Your task to perform on an android device: empty trash in google photos Image 0: 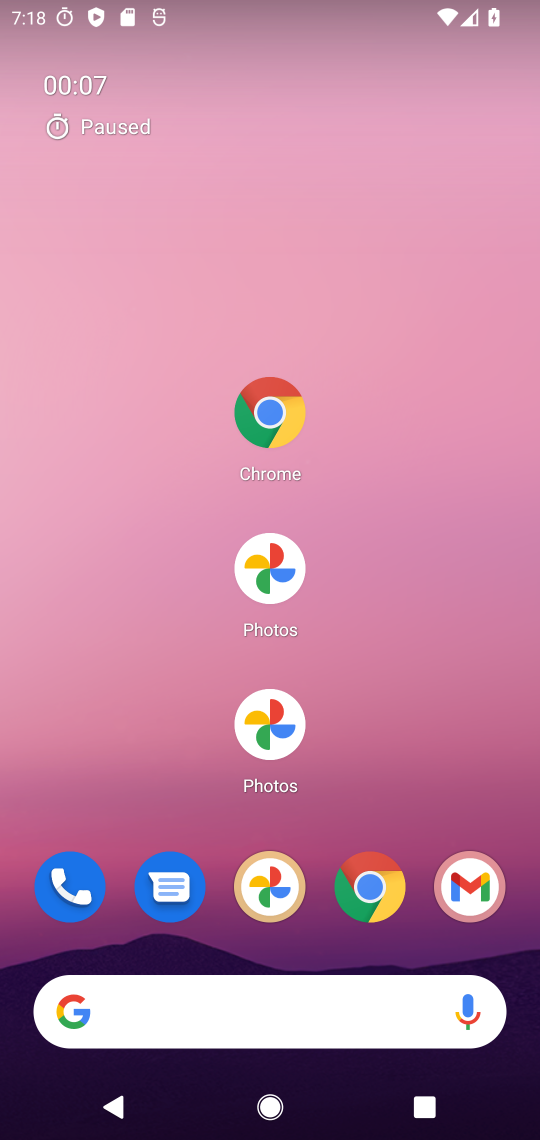
Step 0: press back button
Your task to perform on an android device: empty trash in google photos Image 1: 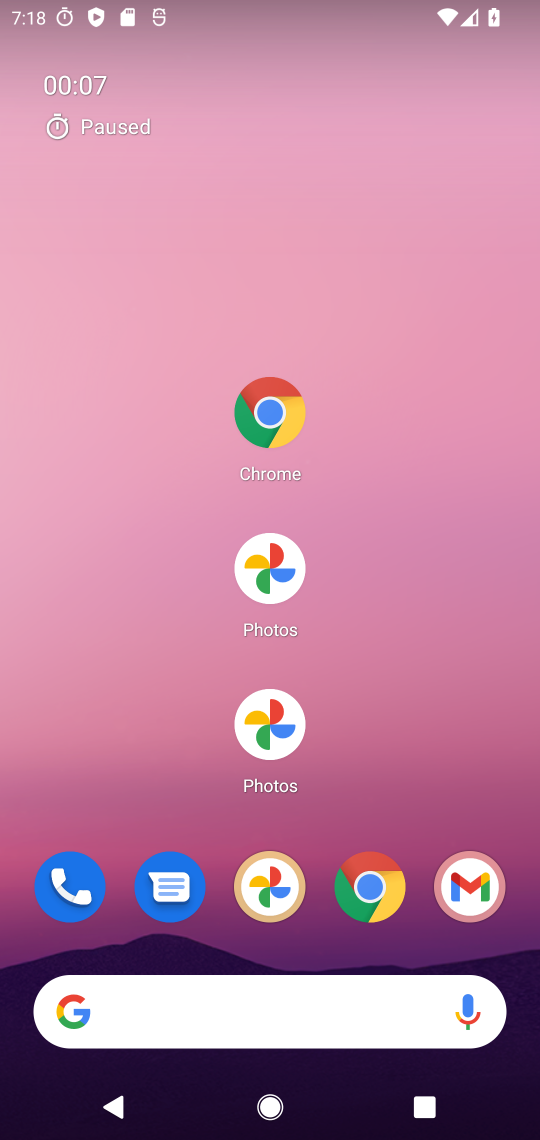
Step 1: press home button
Your task to perform on an android device: empty trash in google photos Image 2: 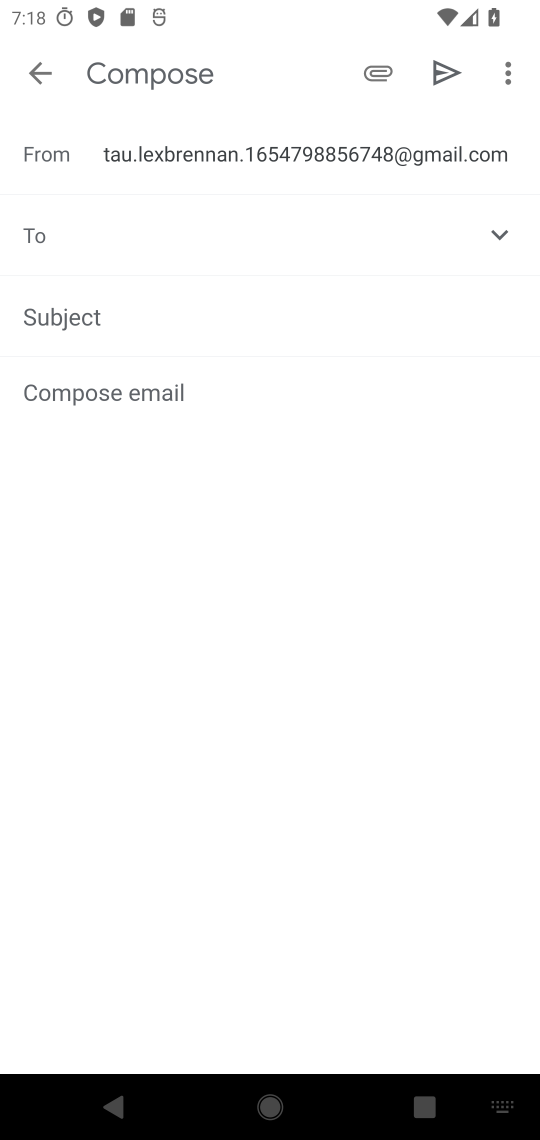
Step 2: press back button
Your task to perform on an android device: empty trash in google photos Image 3: 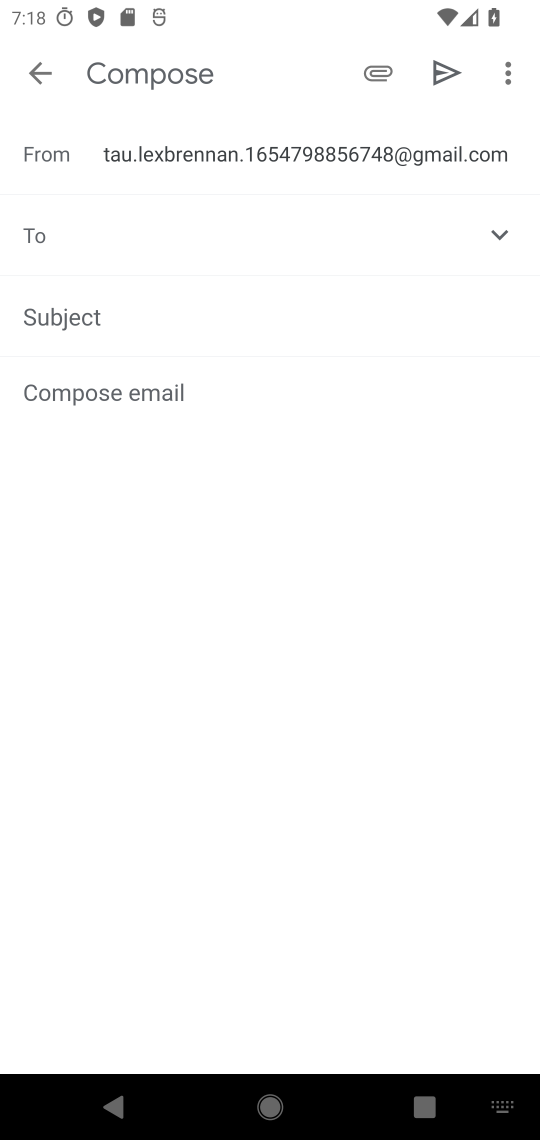
Step 3: drag from (255, 310) to (328, 207)
Your task to perform on an android device: empty trash in google photos Image 4: 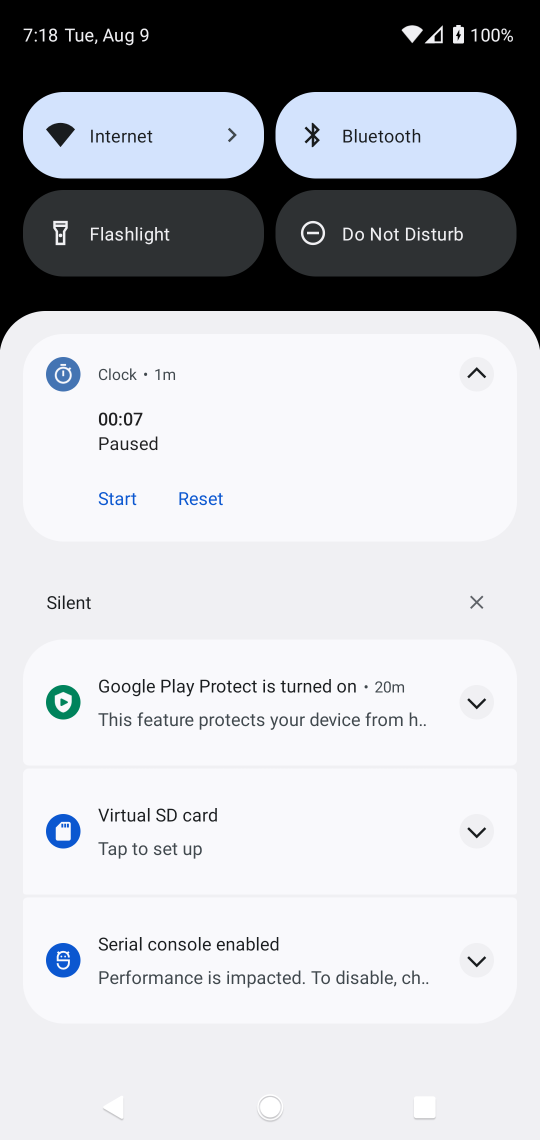
Step 4: press back button
Your task to perform on an android device: empty trash in google photos Image 5: 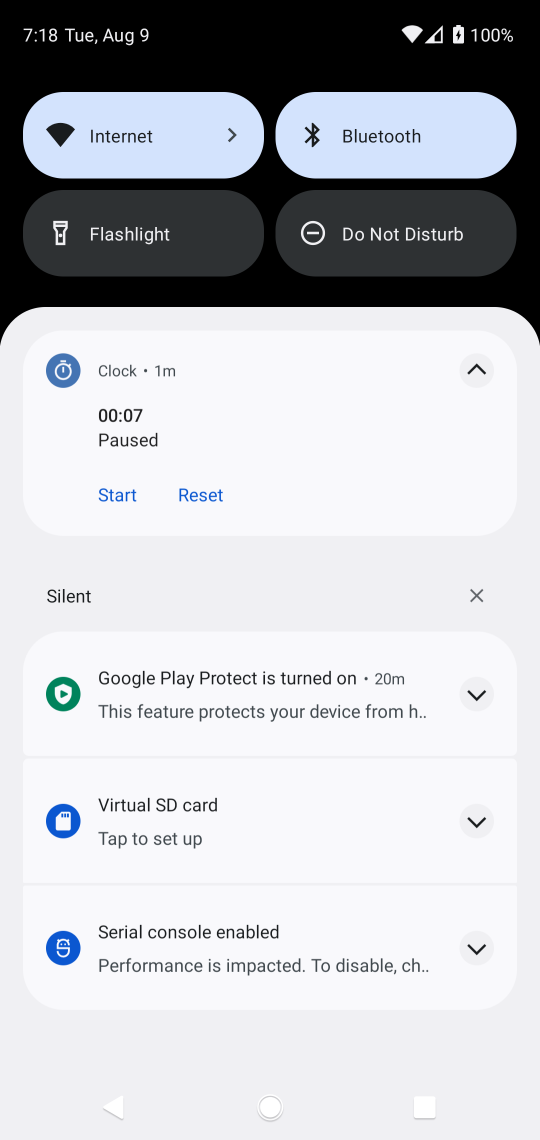
Step 5: press back button
Your task to perform on an android device: empty trash in google photos Image 6: 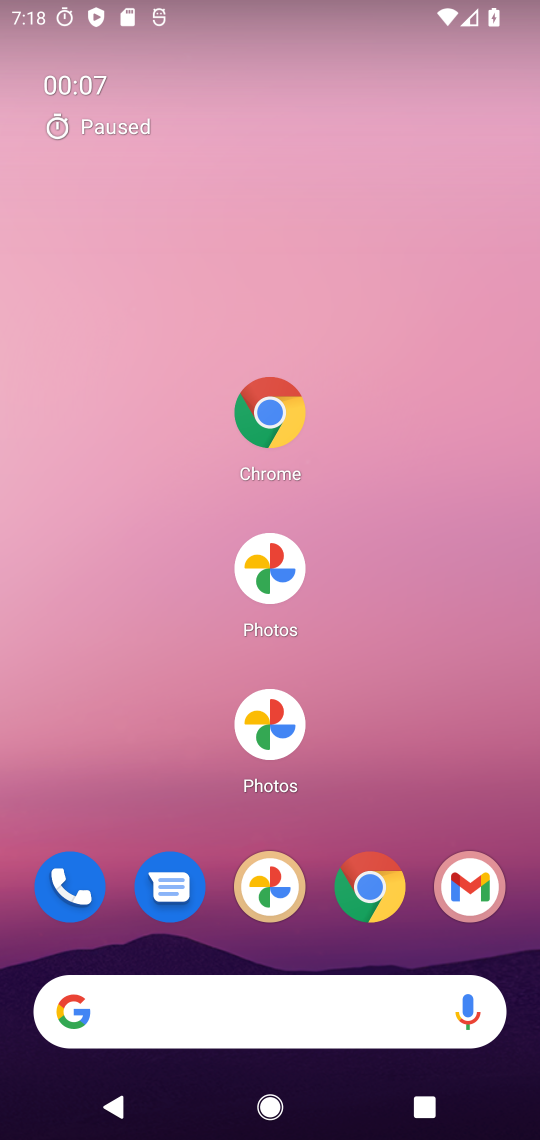
Step 6: press back button
Your task to perform on an android device: empty trash in google photos Image 7: 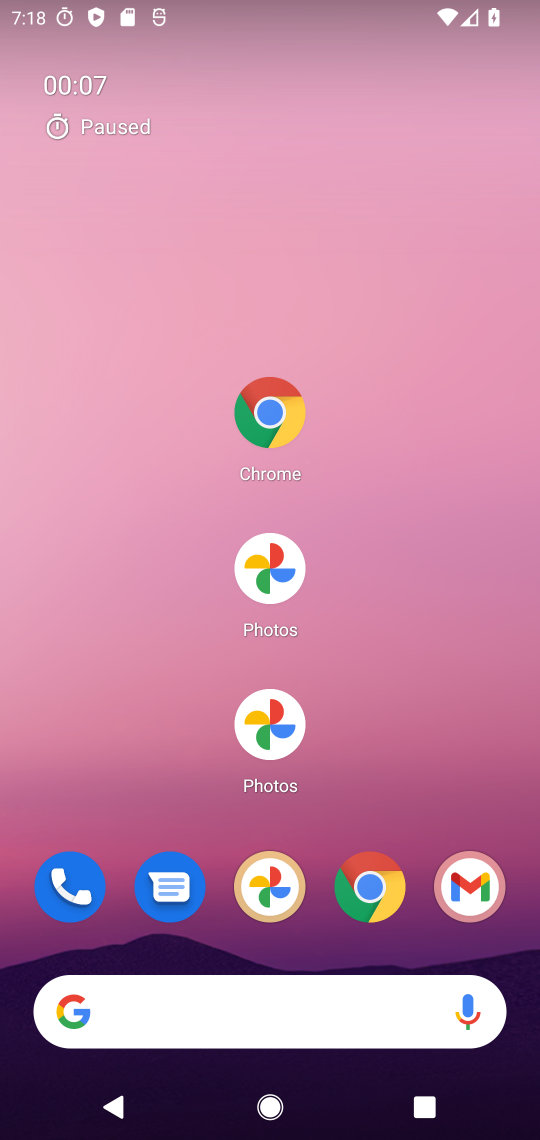
Step 7: drag from (347, 1018) to (317, 391)
Your task to perform on an android device: empty trash in google photos Image 8: 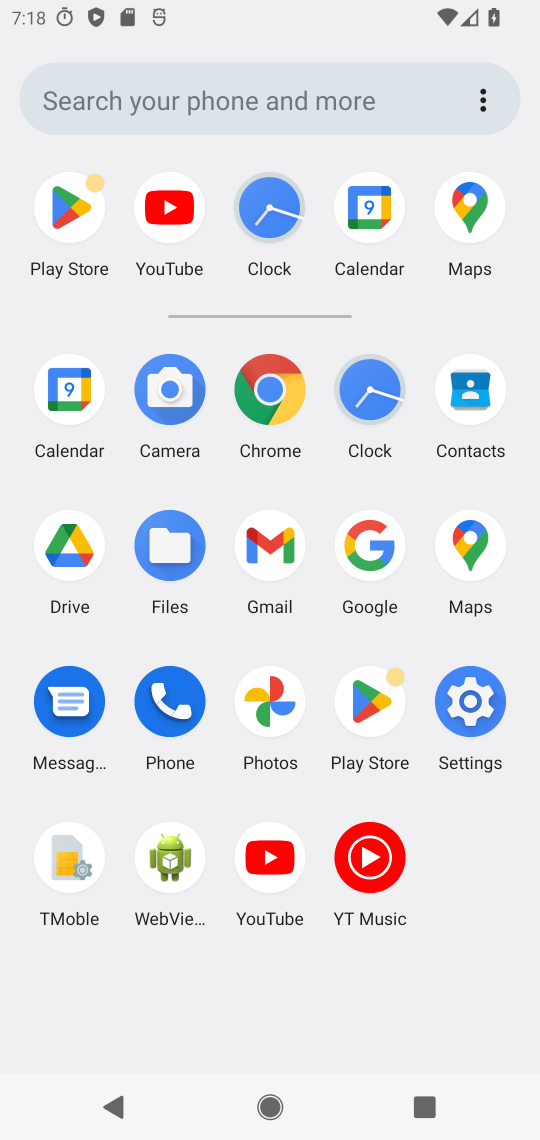
Step 8: click (387, 562)
Your task to perform on an android device: empty trash in google photos Image 9: 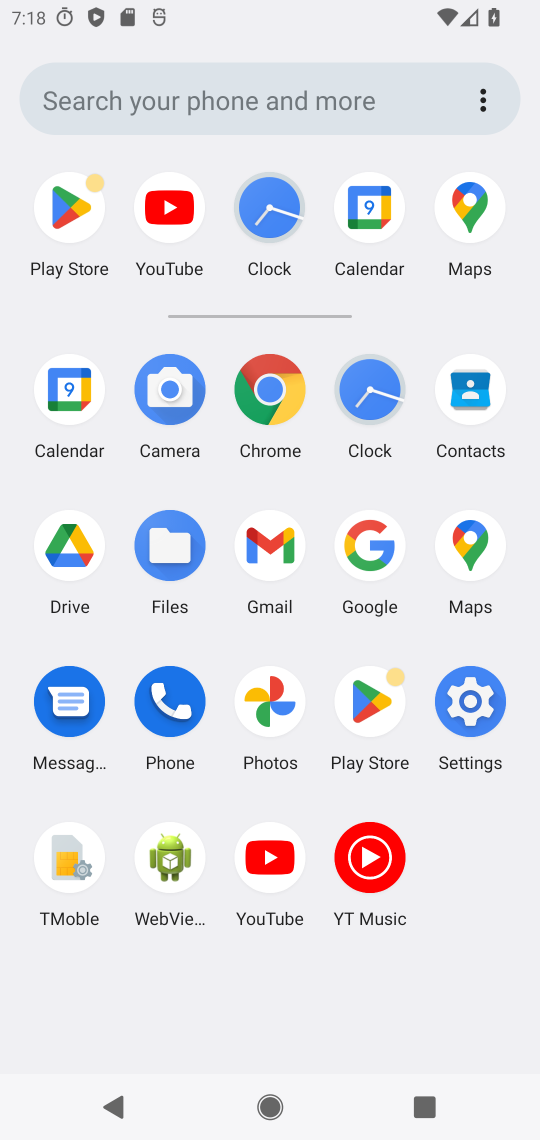
Step 9: click (387, 562)
Your task to perform on an android device: empty trash in google photos Image 10: 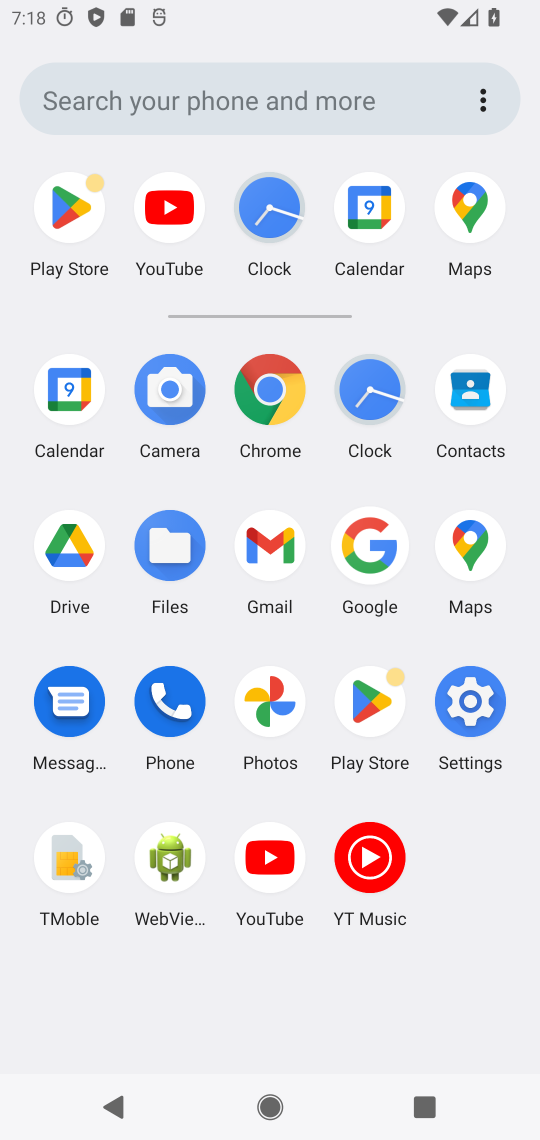
Step 10: click (389, 560)
Your task to perform on an android device: empty trash in google photos Image 11: 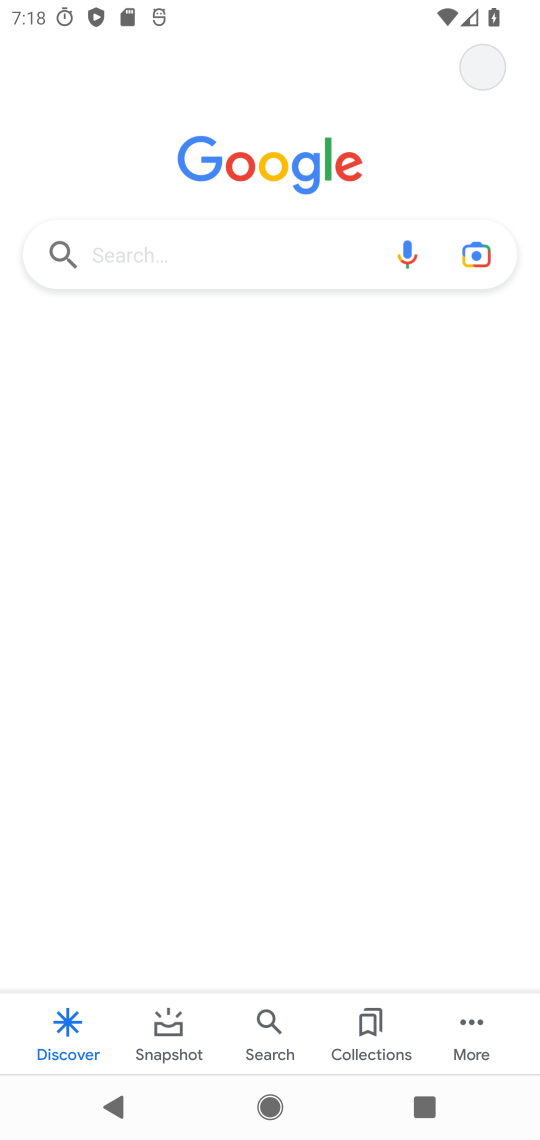
Step 11: click (394, 566)
Your task to perform on an android device: empty trash in google photos Image 12: 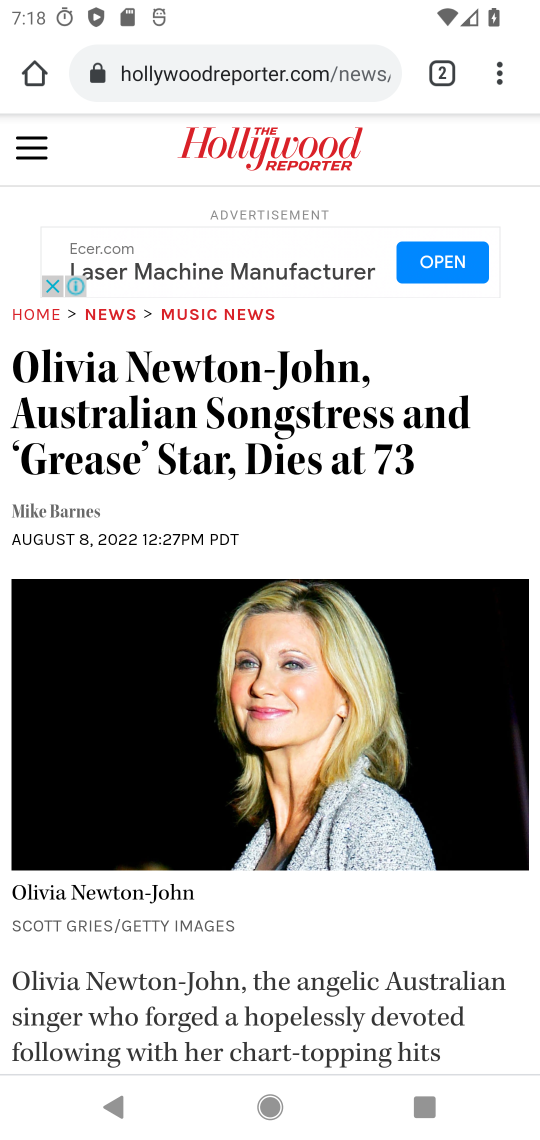
Step 12: drag from (483, 66) to (292, 643)
Your task to perform on an android device: empty trash in google photos Image 13: 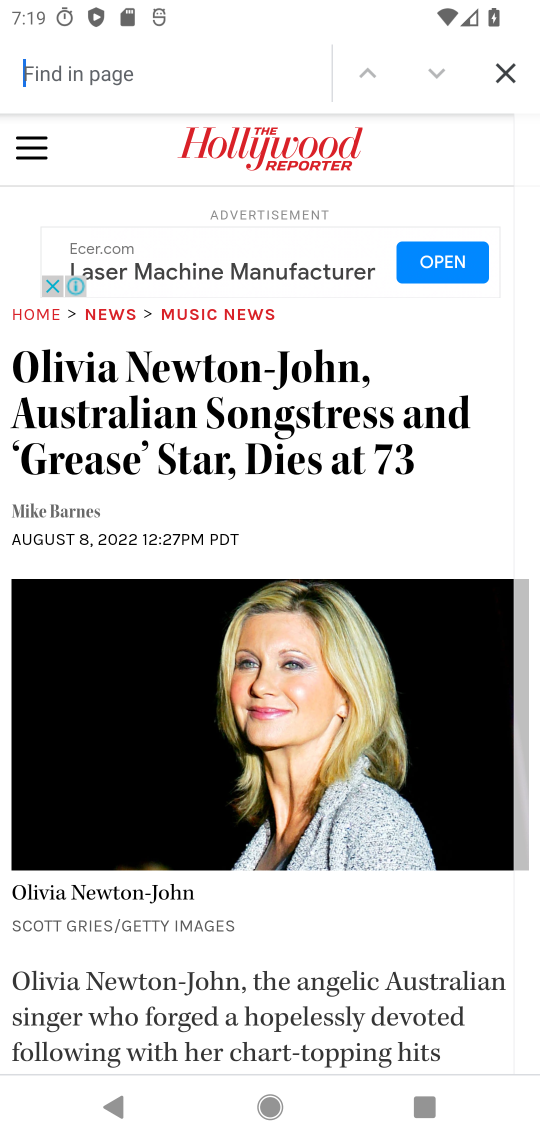
Step 13: click (108, 167)
Your task to perform on an android device: empty trash in google photos Image 14: 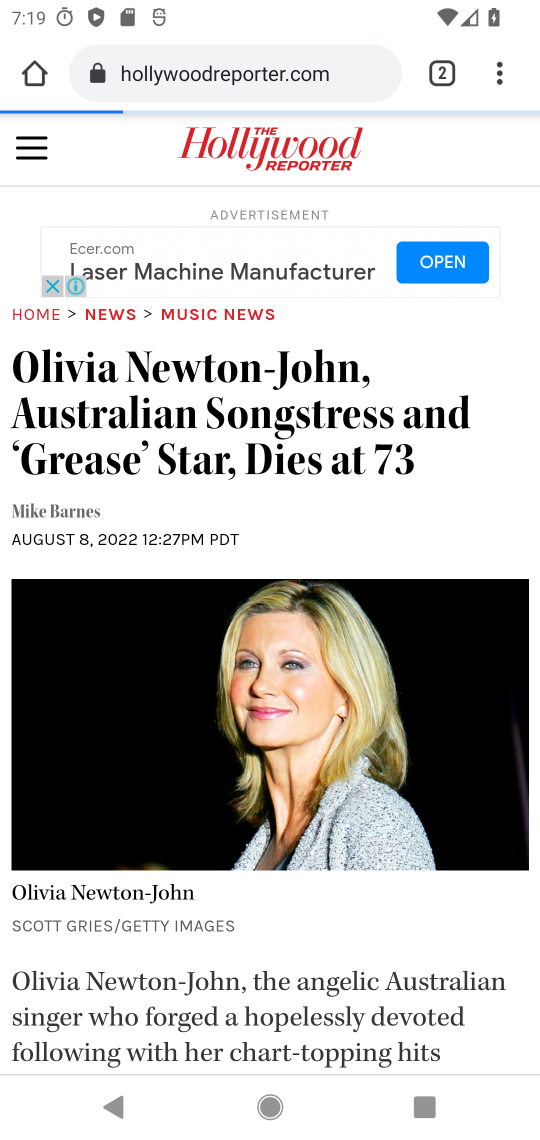
Step 14: press back button
Your task to perform on an android device: empty trash in google photos Image 15: 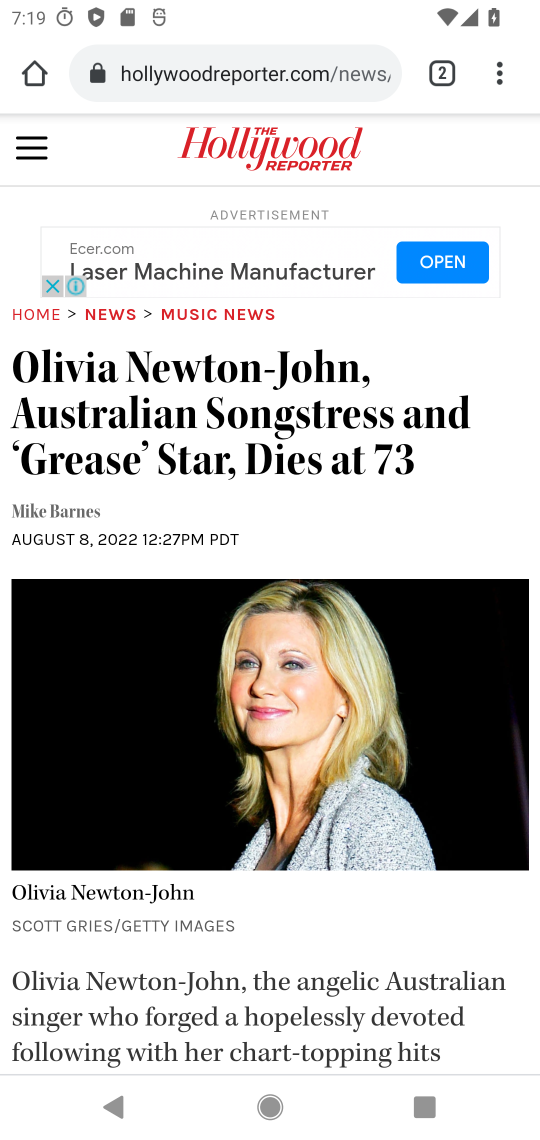
Step 15: press back button
Your task to perform on an android device: empty trash in google photos Image 16: 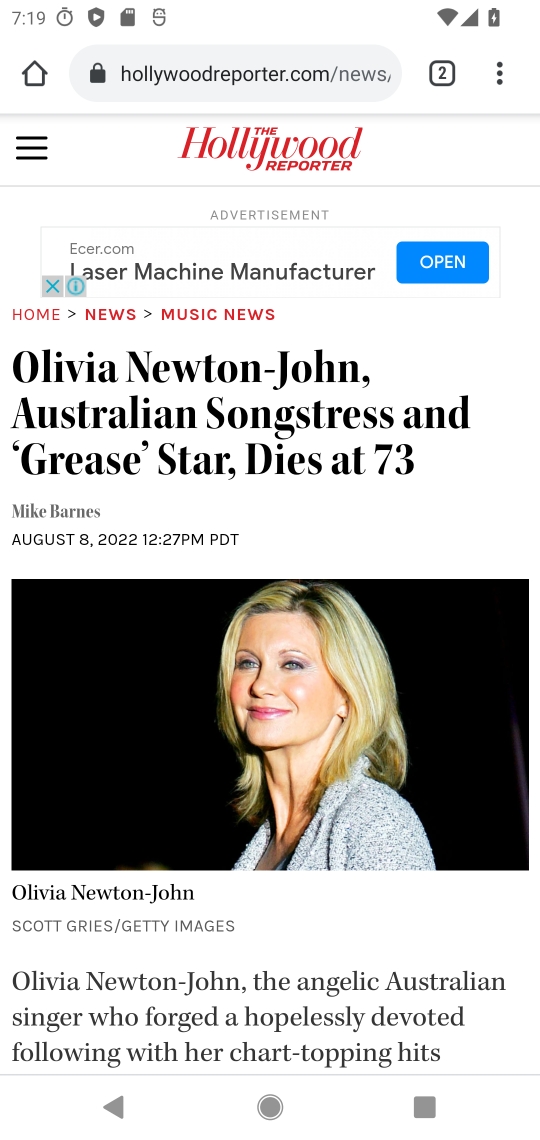
Step 16: press back button
Your task to perform on an android device: empty trash in google photos Image 17: 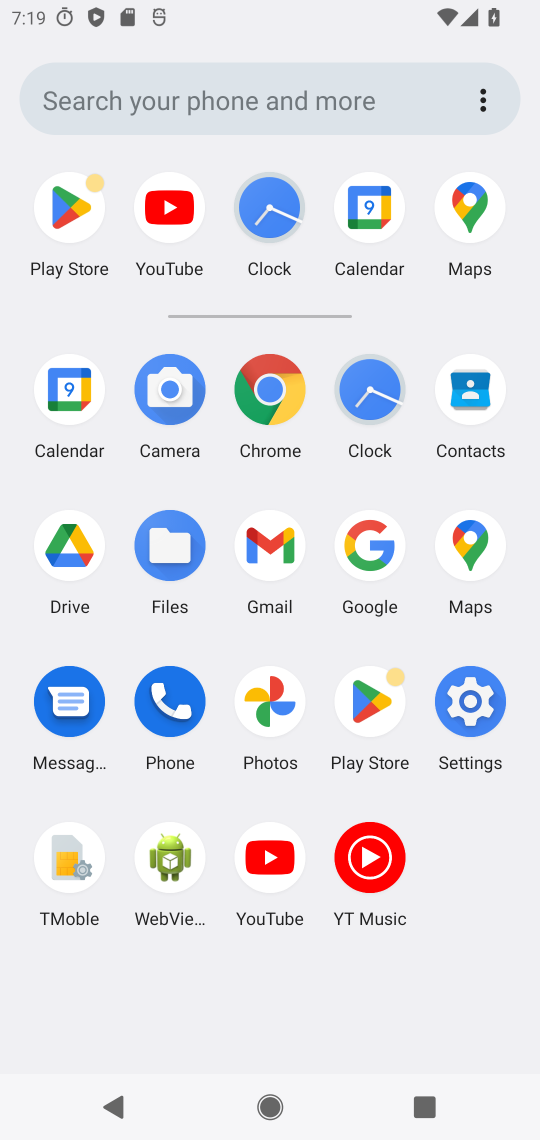
Step 17: drag from (299, 792) to (204, 127)
Your task to perform on an android device: empty trash in google photos Image 18: 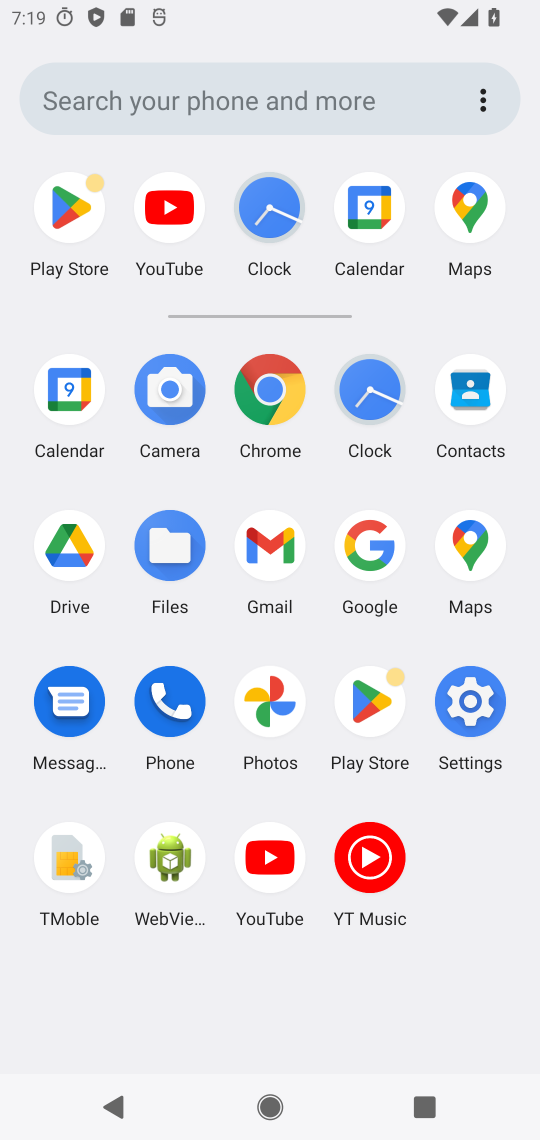
Step 18: drag from (256, 676) to (251, 185)
Your task to perform on an android device: empty trash in google photos Image 19: 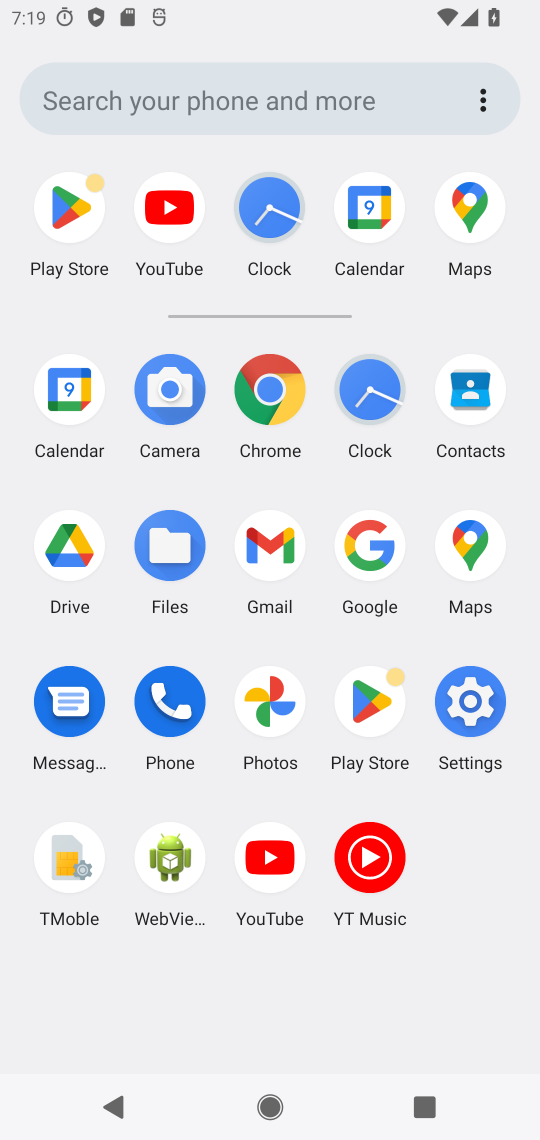
Step 19: drag from (333, 844) to (249, 250)
Your task to perform on an android device: empty trash in google photos Image 20: 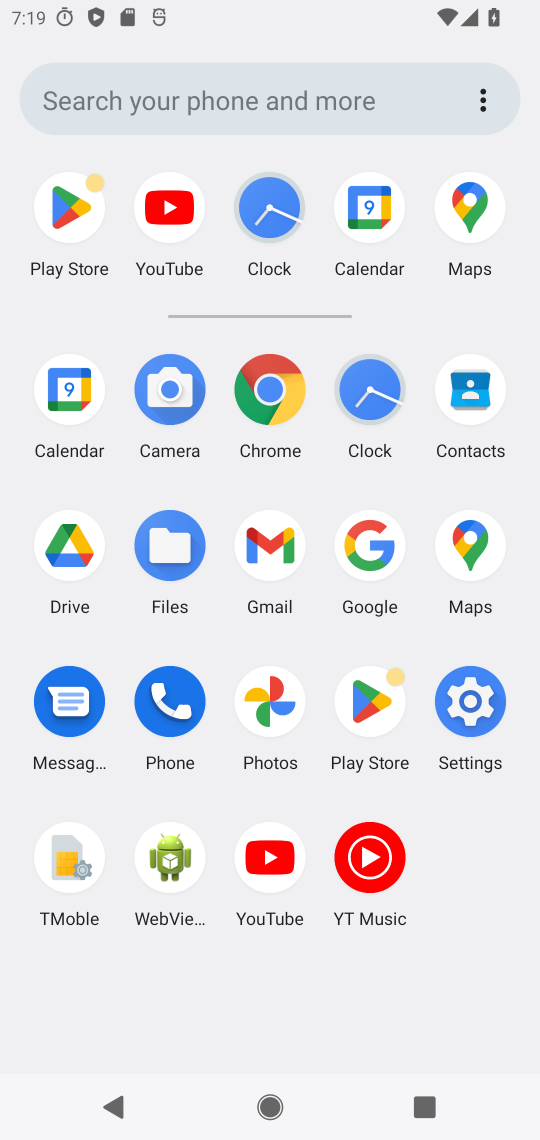
Step 20: click (248, 692)
Your task to perform on an android device: empty trash in google photos Image 21: 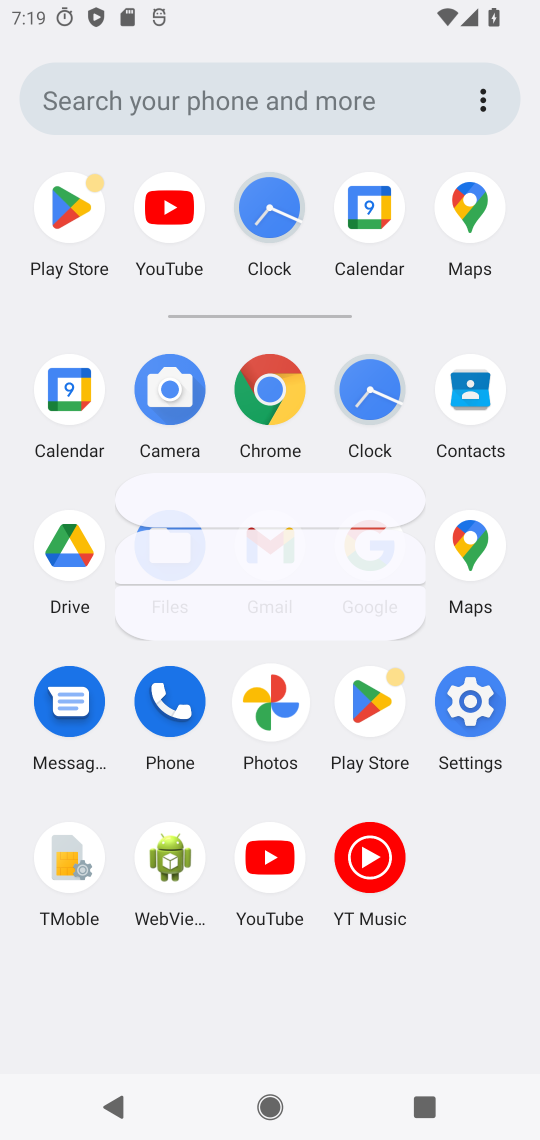
Step 21: click (259, 711)
Your task to perform on an android device: empty trash in google photos Image 22: 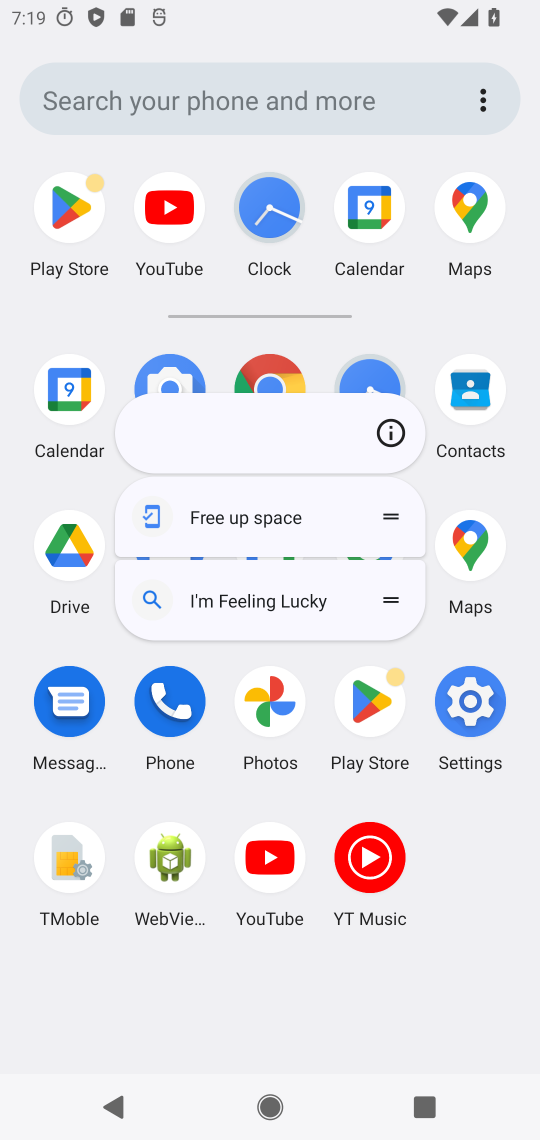
Step 22: click (262, 718)
Your task to perform on an android device: empty trash in google photos Image 23: 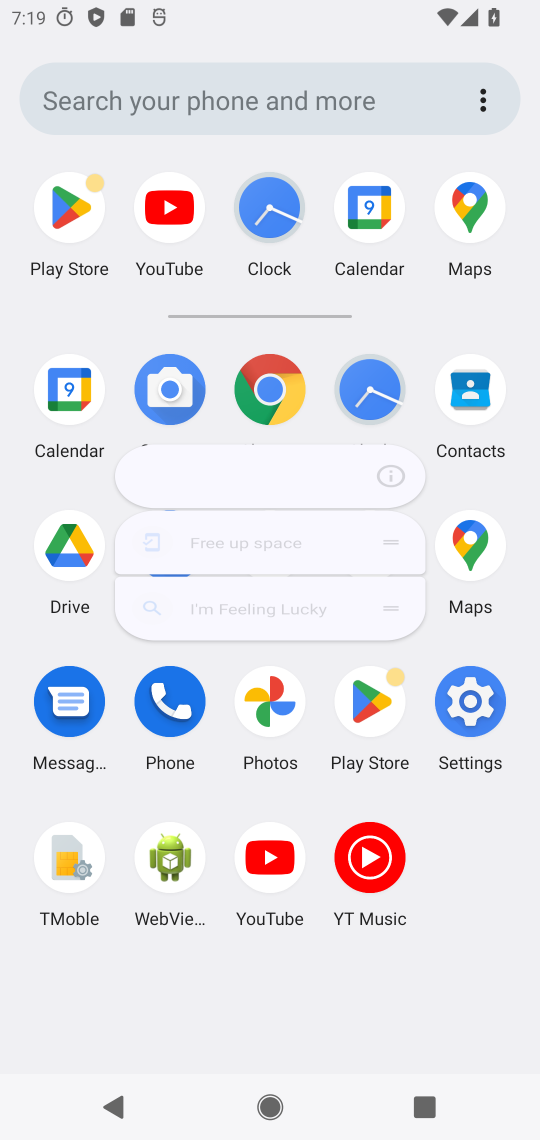
Step 23: click (263, 720)
Your task to perform on an android device: empty trash in google photos Image 24: 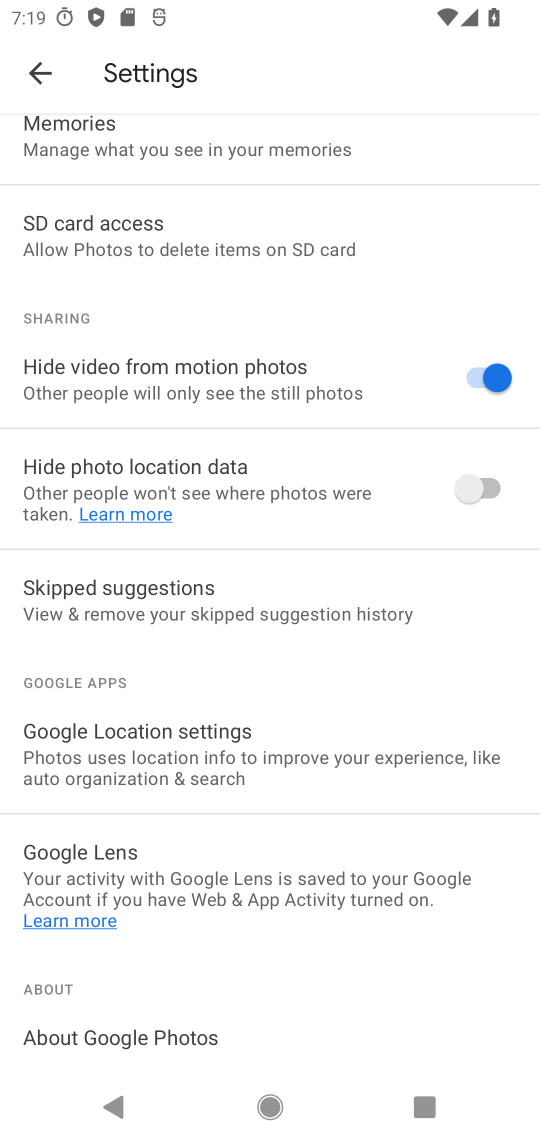
Step 24: task complete